Your task to perform on an android device: open chrome privacy settings Image 0: 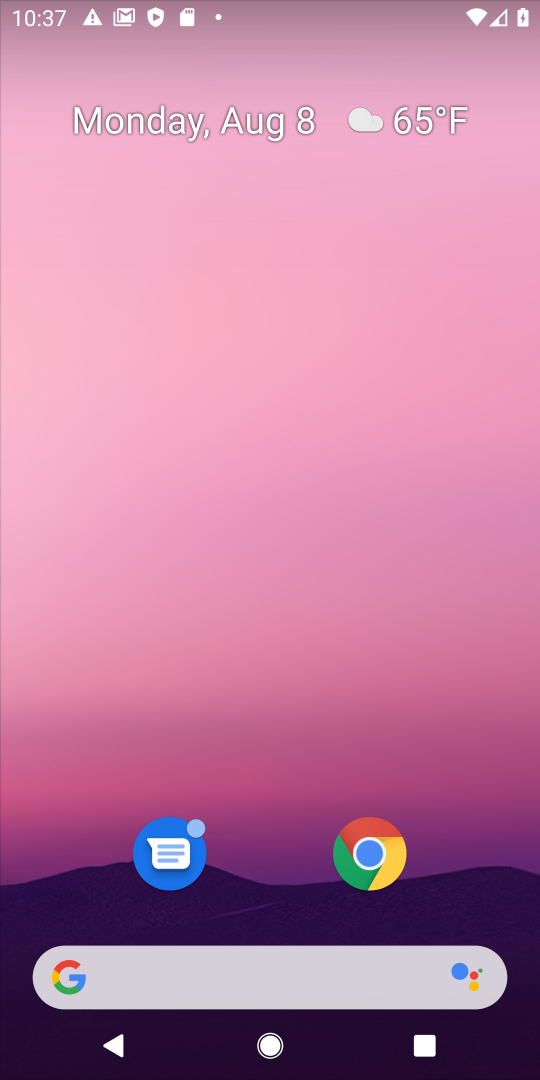
Step 0: click (378, 858)
Your task to perform on an android device: open chrome privacy settings Image 1: 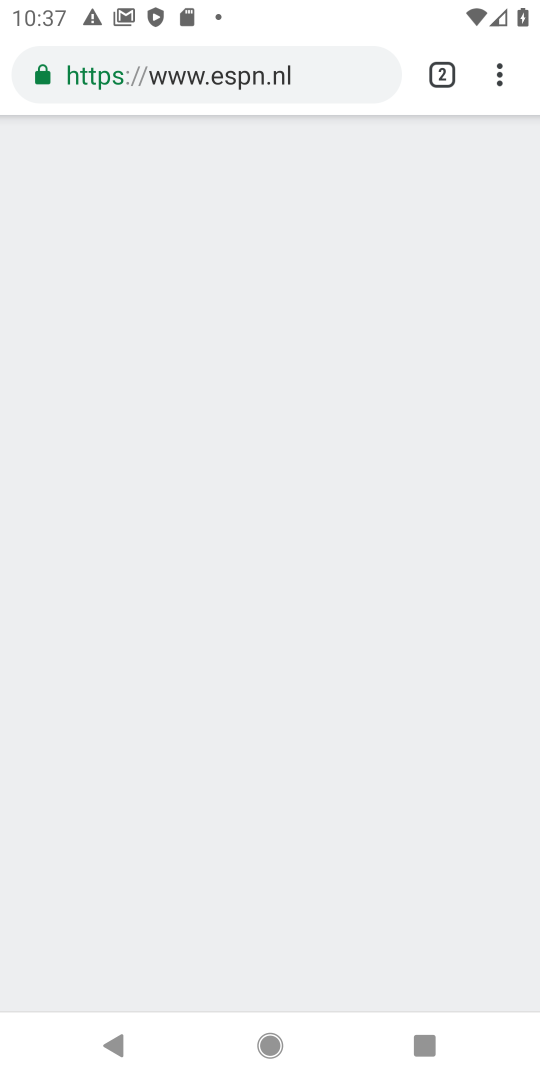
Step 1: click (492, 76)
Your task to perform on an android device: open chrome privacy settings Image 2: 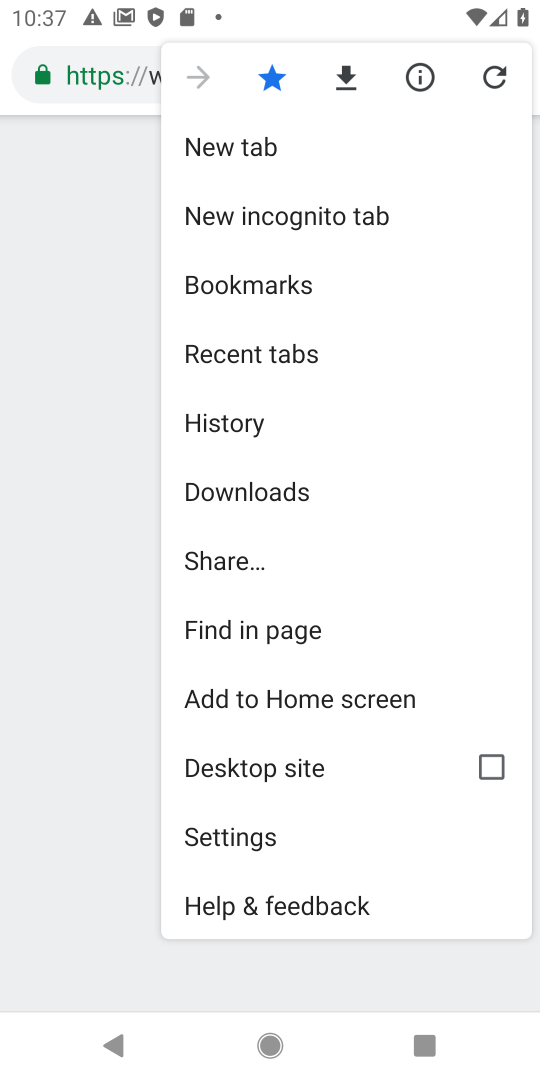
Step 2: click (241, 837)
Your task to perform on an android device: open chrome privacy settings Image 3: 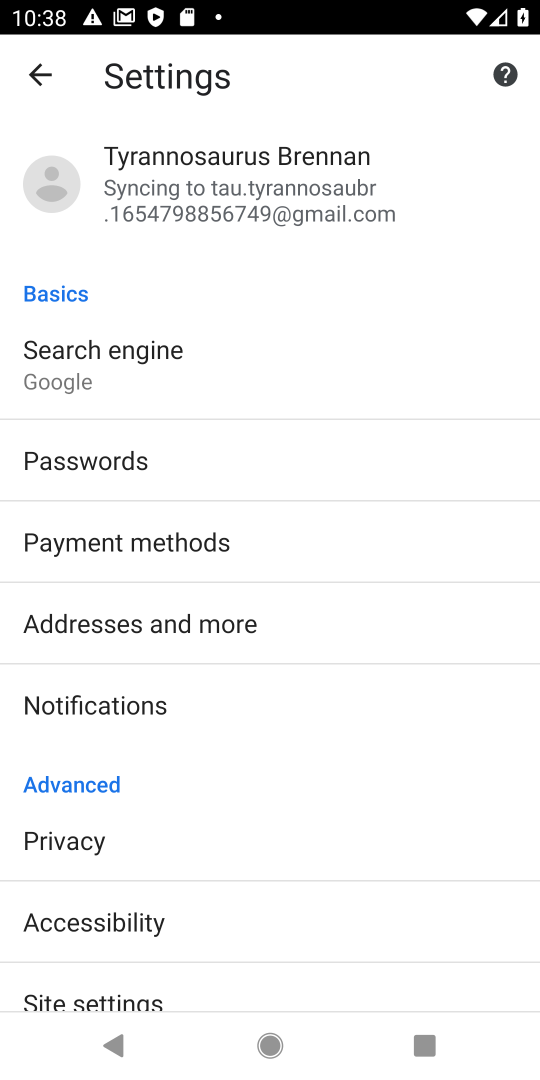
Step 3: click (29, 849)
Your task to perform on an android device: open chrome privacy settings Image 4: 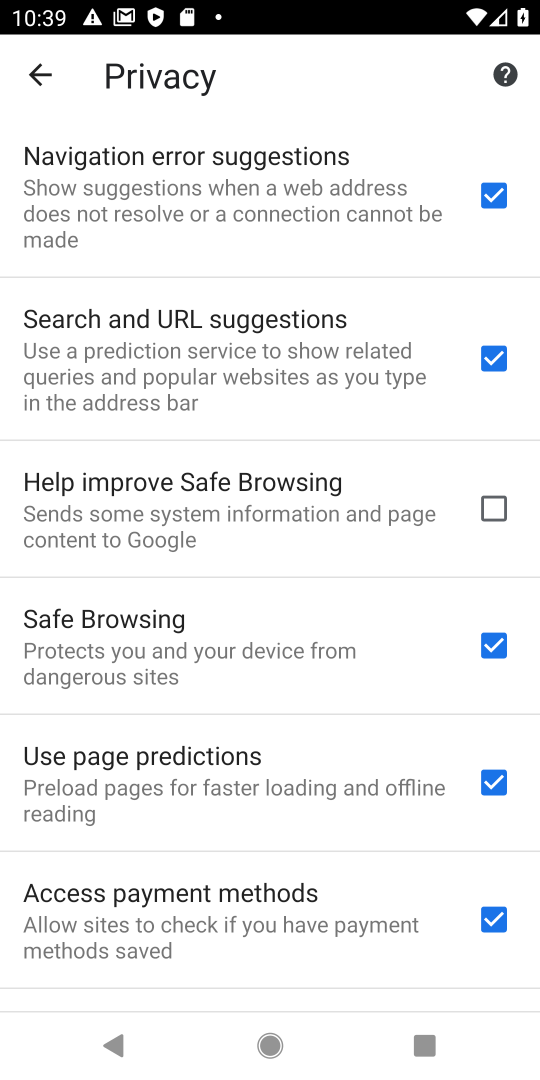
Step 4: task complete